Your task to perform on an android device: move a message to another label in the gmail app Image 0: 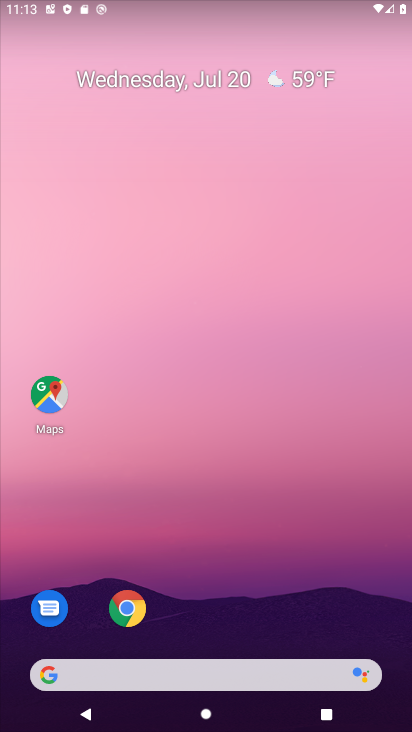
Step 0: drag from (350, 591) to (305, 0)
Your task to perform on an android device: move a message to another label in the gmail app Image 1: 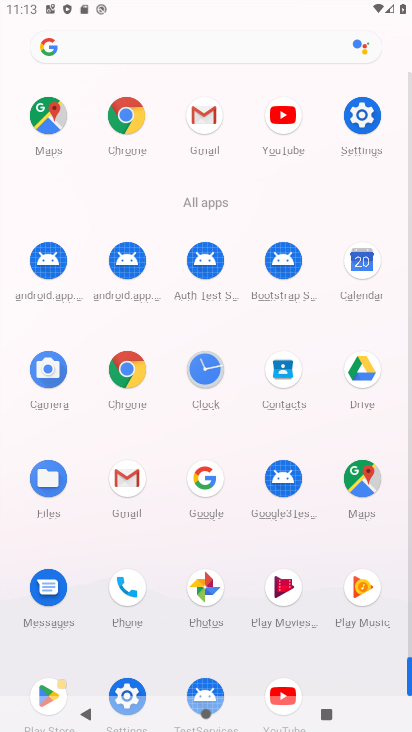
Step 1: click (199, 113)
Your task to perform on an android device: move a message to another label in the gmail app Image 2: 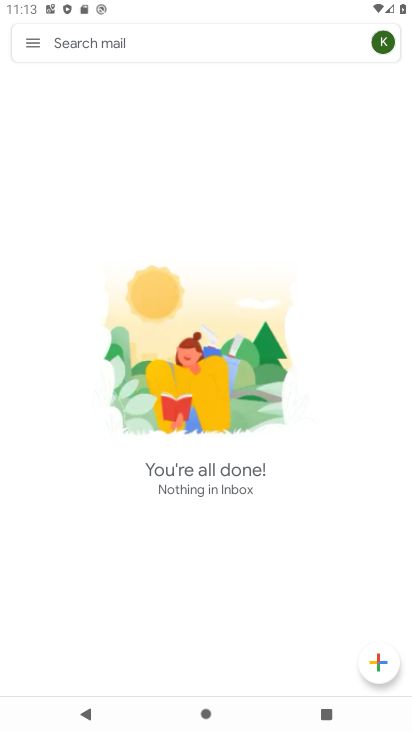
Step 2: task complete